Your task to perform on an android device: Show me popular videos on Youtube Image 0: 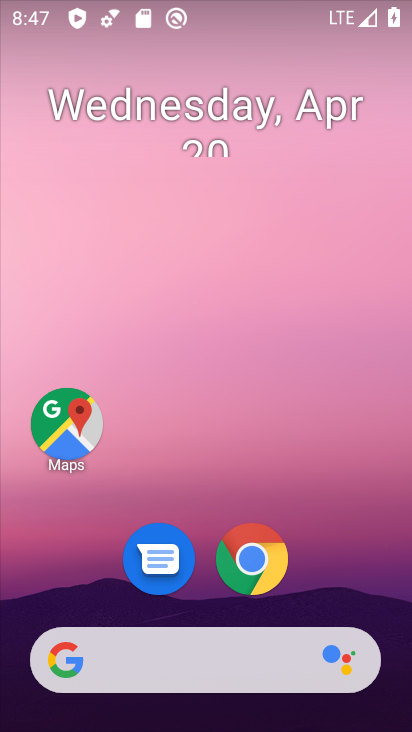
Step 0: drag from (320, 594) to (319, 136)
Your task to perform on an android device: Show me popular videos on Youtube Image 1: 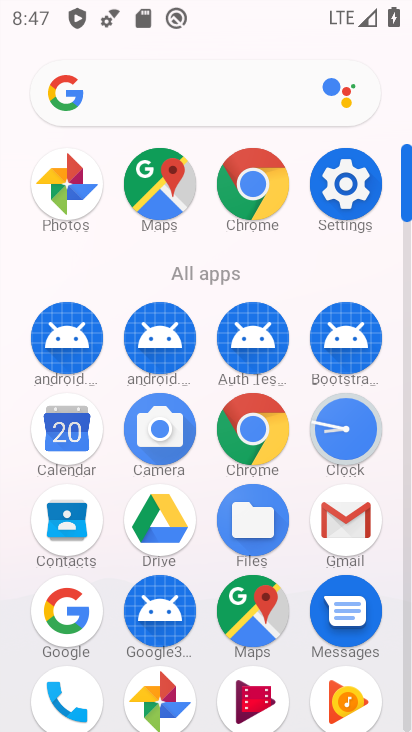
Step 1: drag from (304, 677) to (335, 250)
Your task to perform on an android device: Show me popular videos on Youtube Image 2: 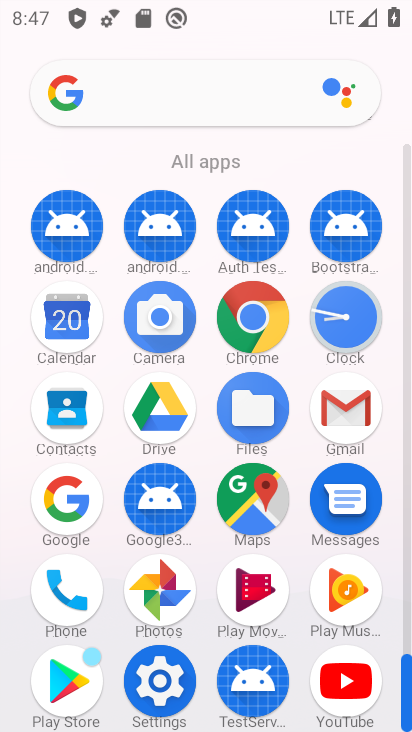
Step 2: click (335, 681)
Your task to perform on an android device: Show me popular videos on Youtube Image 3: 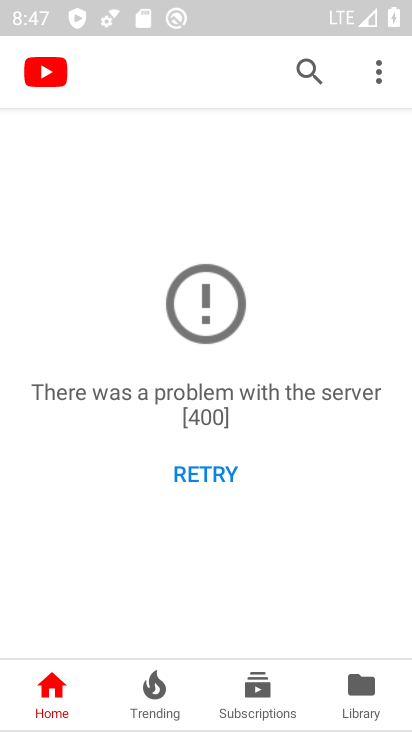
Step 3: click (146, 705)
Your task to perform on an android device: Show me popular videos on Youtube Image 4: 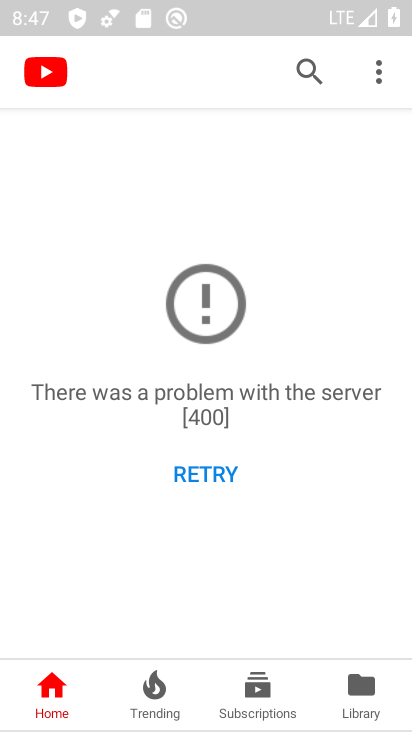
Step 4: click (153, 704)
Your task to perform on an android device: Show me popular videos on Youtube Image 5: 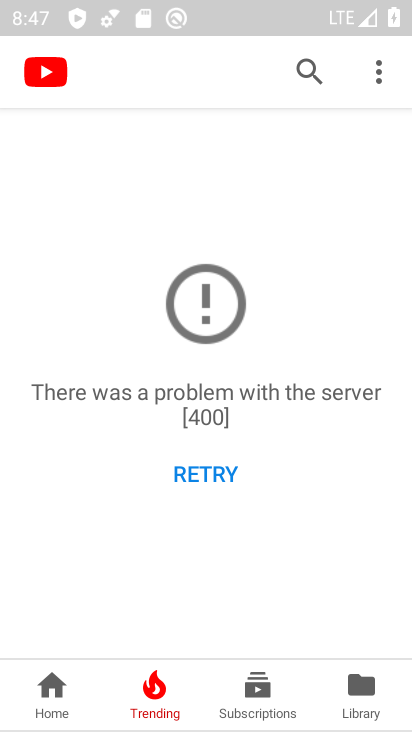
Step 5: task complete